Your task to perform on an android device: open app "Google Docs" Image 0: 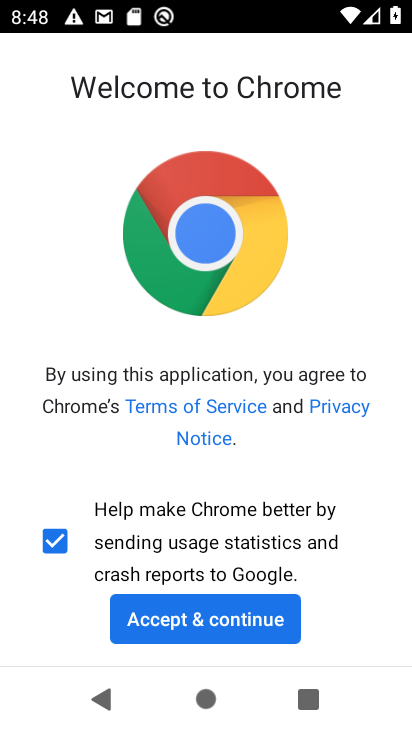
Step 0: press home button
Your task to perform on an android device: open app "Google Docs" Image 1: 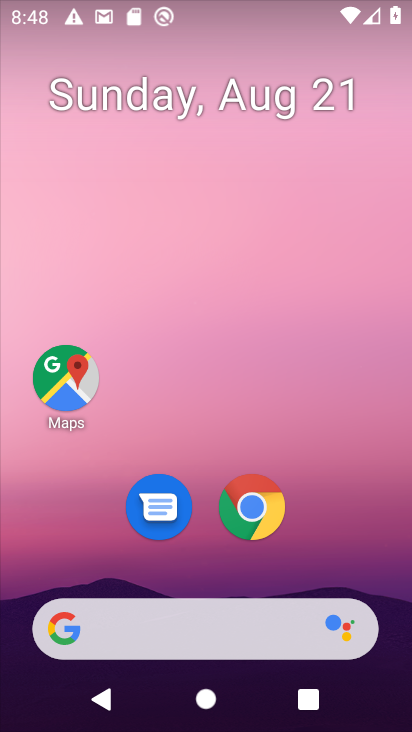
Step 1: drag from (194, 570) to (197, 73)
Your task to perform on an android device: open app "Google Docs" Image 2: 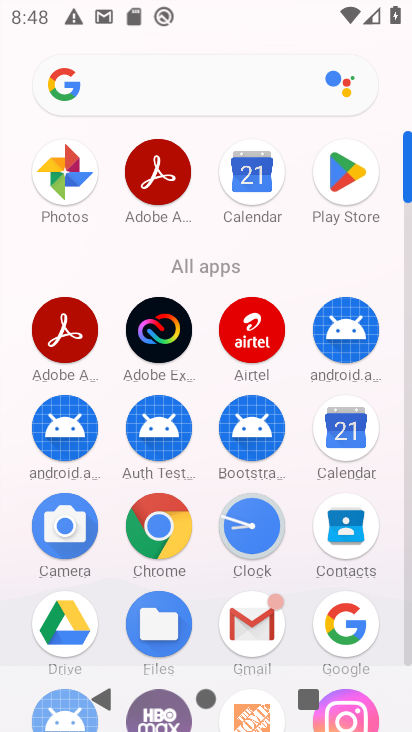
Step 2: click (341, 164)
Your task to perform on an android device: open app "Google Docs" Image 3: 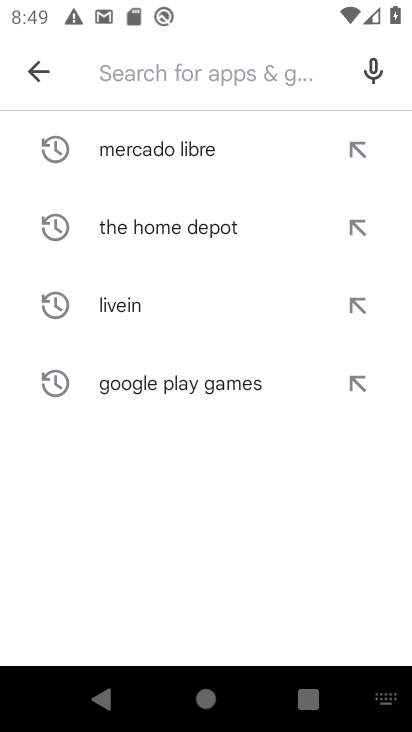
Step 3: type "Google Docs"
Your task to perform on an android device: open app "Google Docs" Image 4: 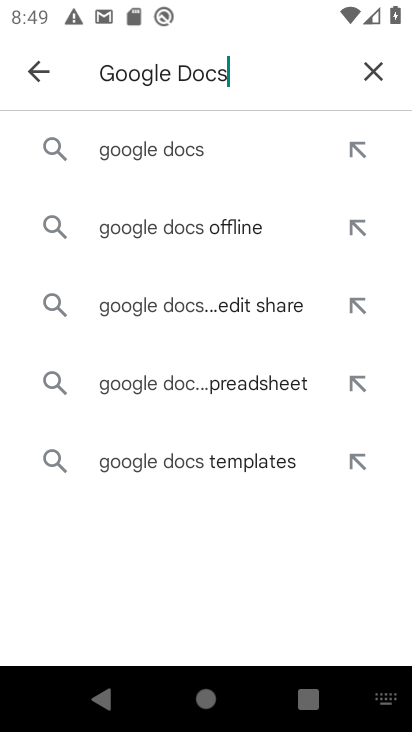
Step 4: click (178, 146)
Your task to perform on an android device: open app "Google Docs" Image 5: 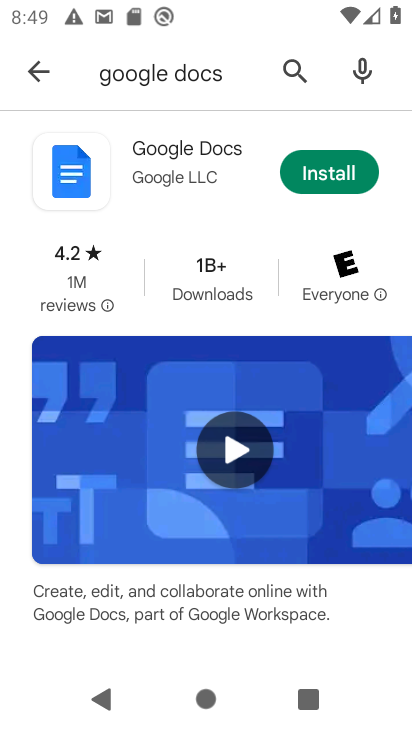
Step 5: click (329, 160)
Your task to perform on an android device: open app "Google Docs" Image 6: 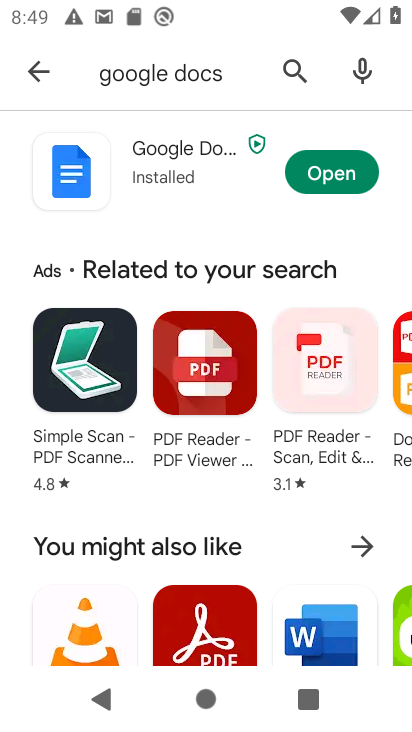
Step 6: click (329, 176)
Your task to perform on an android device: open app "Google Docs" Image 7: 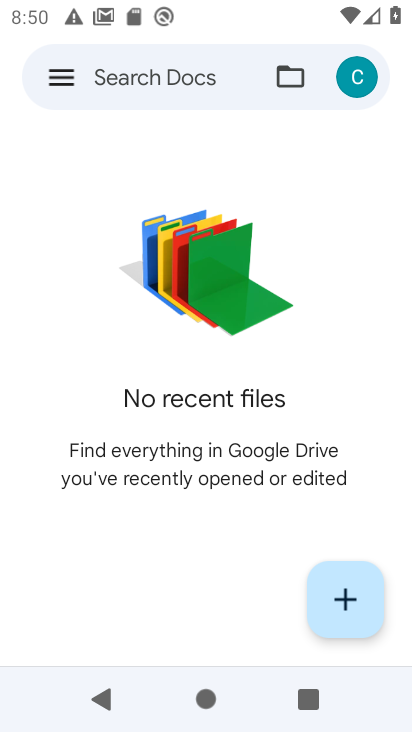
Step 7: task complete